Your task to perform on an android device: open a bookmark in the chrome app Image 0: 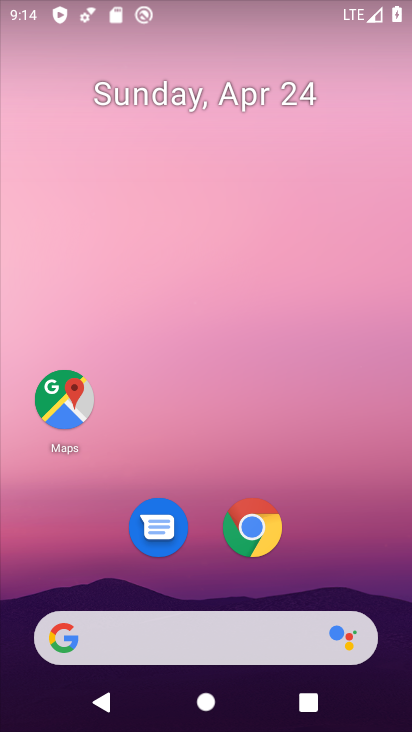
Step 0: drag from (349, 608) to (356, 41)
Your task to perform on an android device: open a bookmark in the chrome app Image 1: 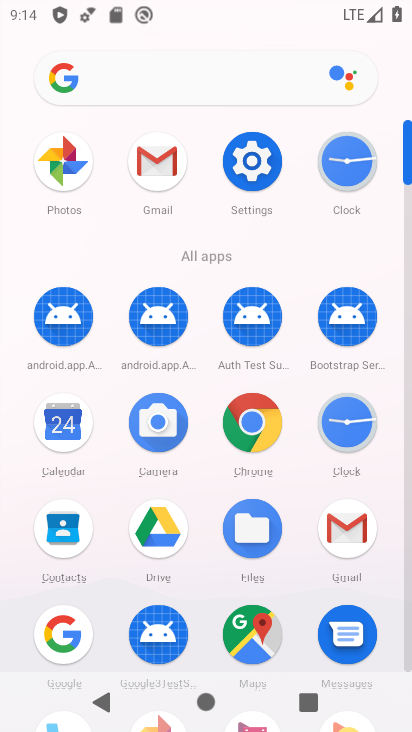
Step 1: click (259, 458)
Your task to perform on an android device: open a bookmark in the chrome app Image 2: 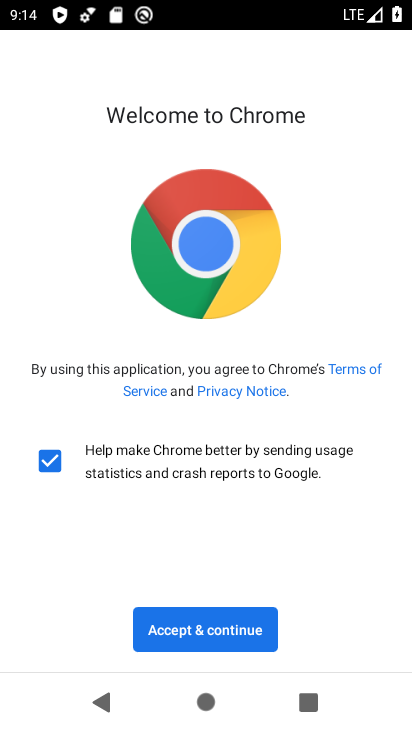
Step 2: click (250, 617)
Your task to perform on an android device: open a bookmark in the chrome app Image 3: 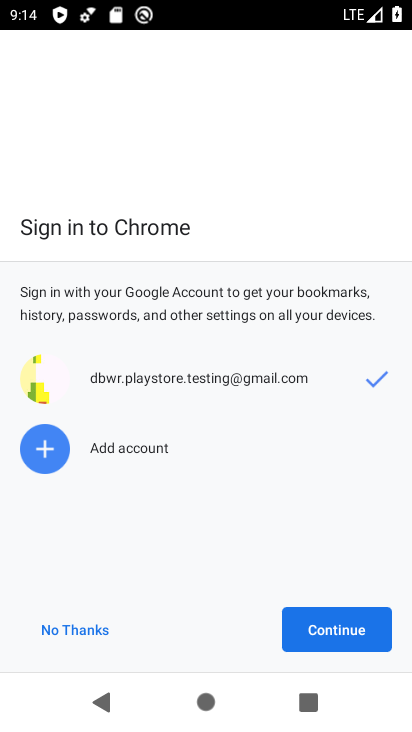
Step 3: click (96, 639)
Your task to perform on an android device: open a bookmark in the chrome app Image 4: 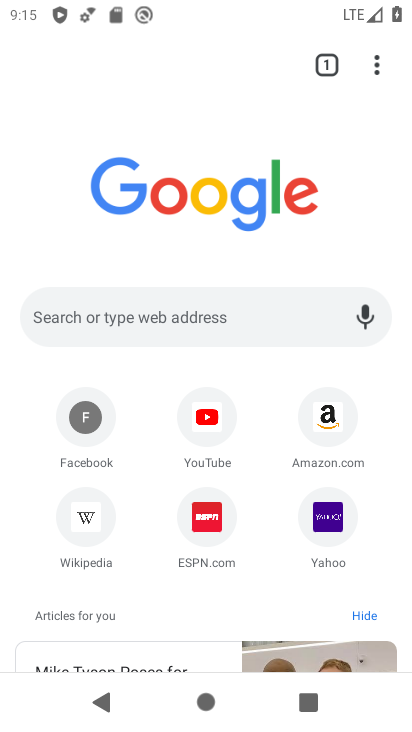
Step 4: click (376, 58)
Your task to perform on an android device: open a bookmark in the chrome app Image 5: 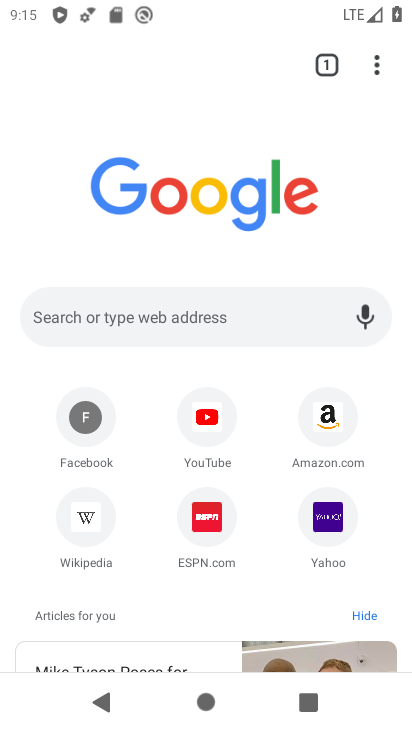
Step 5: task complete